Your task to perform on an android device: change notification settings in the gmail app Image 0: 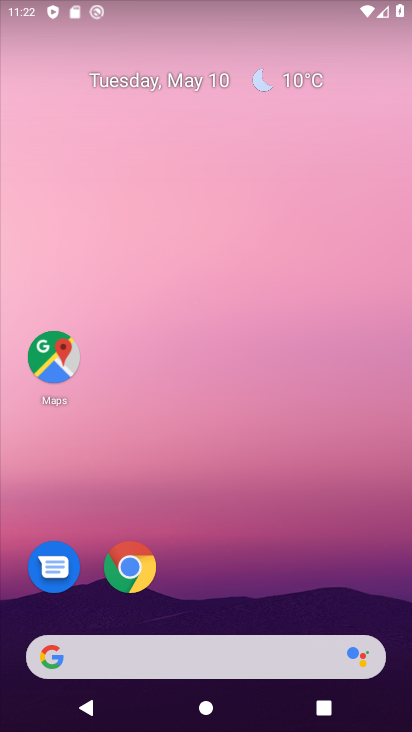
Step 0: drag from (319, 611) to (381, 7)
Your task to perform on an android device: change notification settings in the gmail app Image 1: 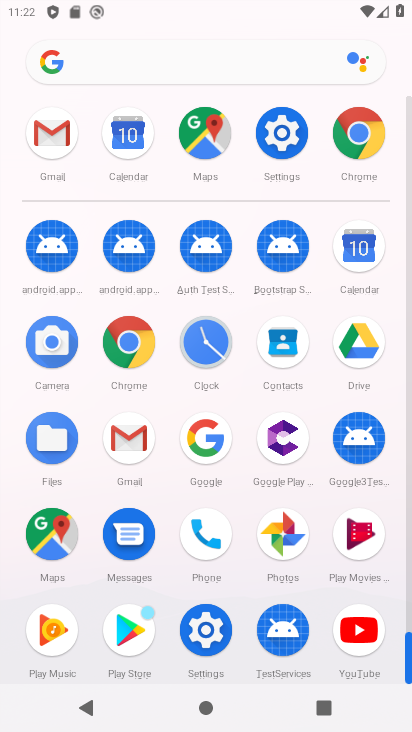
Step 1: click (119, 437)
Your task to perform on an android device: change notification settings in the gmail app Image 2: 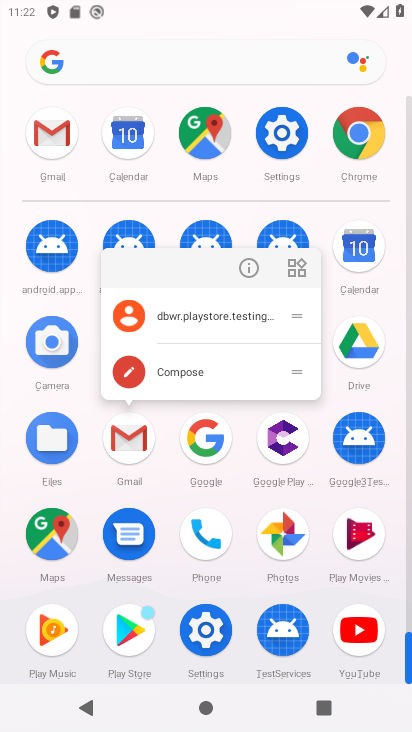
Step 2: press back button
Your task to perform on an android device: change notification settings in the gmail app Image 3: 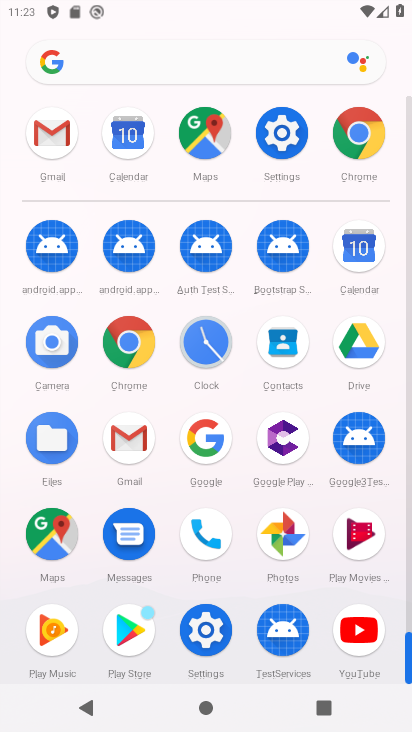
Step 3: click (130, 438)
Your task to perform on an android device: change notification settings in the gmail app Image 4: 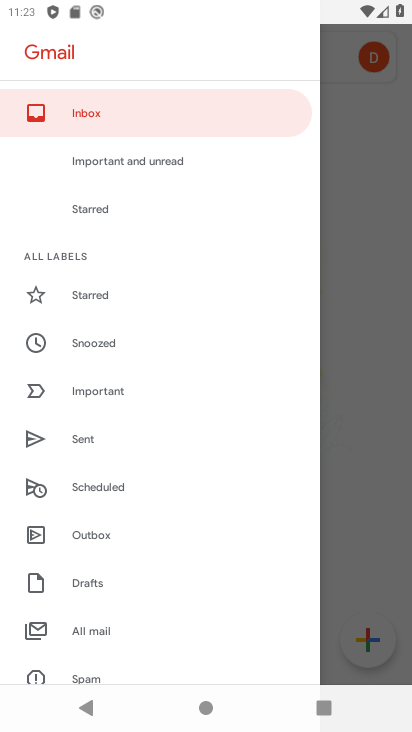
Step 4: drag from (222, 683) to (250, 211)
Your task to perform on an android device: change notification settings in the gmail app Image 5: 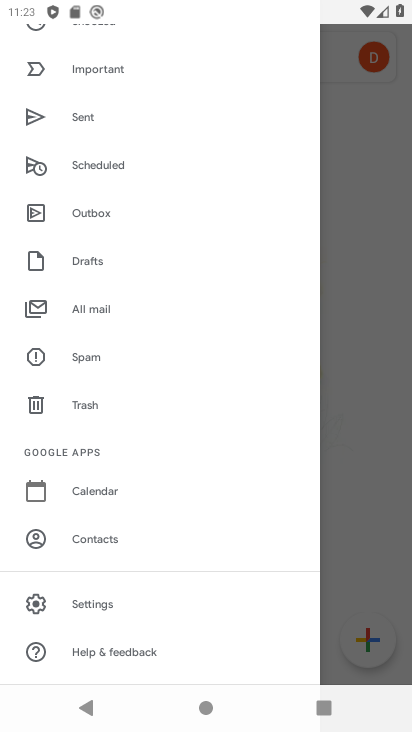
Step 5: click (124, 605)
Your task to perform on an android device: change notification settings in the gmail app Image 6: 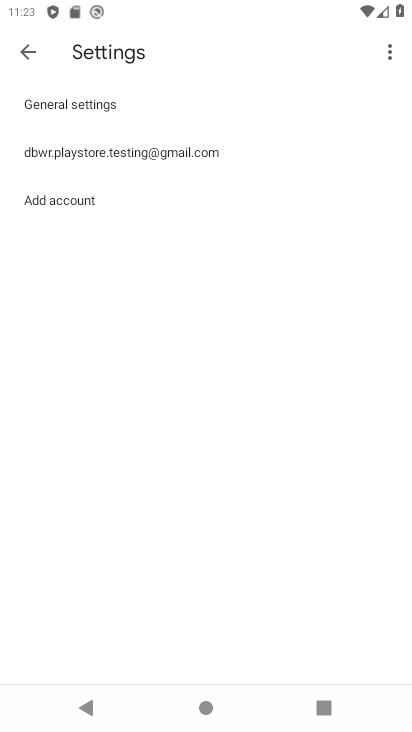
Step 6: click (202, 152)
Your task to perform on an android device: change notification settings in the gmail app Image 7: 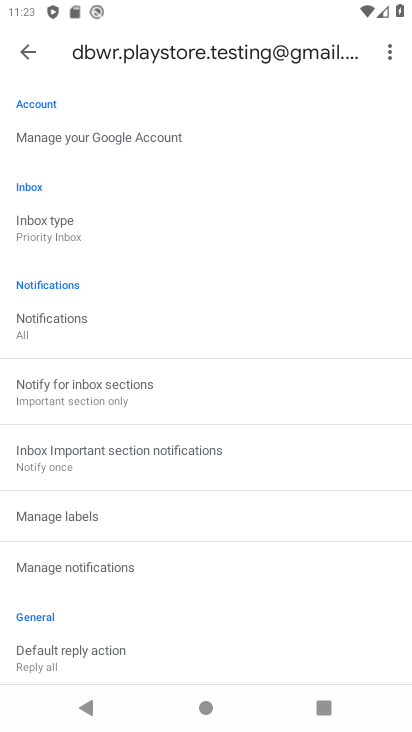
Step 7: click (89, 575)
Your task to perform on an android device: change notification settings in the gmail app Image 8: 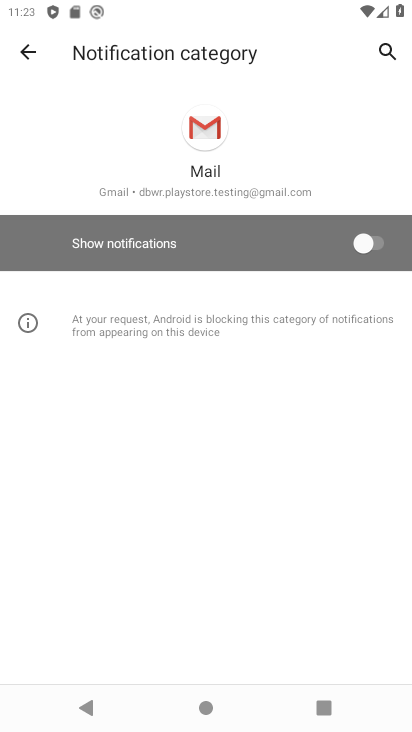
Step 8: task complete